Your task to perform on an android device: Open calendar and show me the fourth week of next month Image 0: 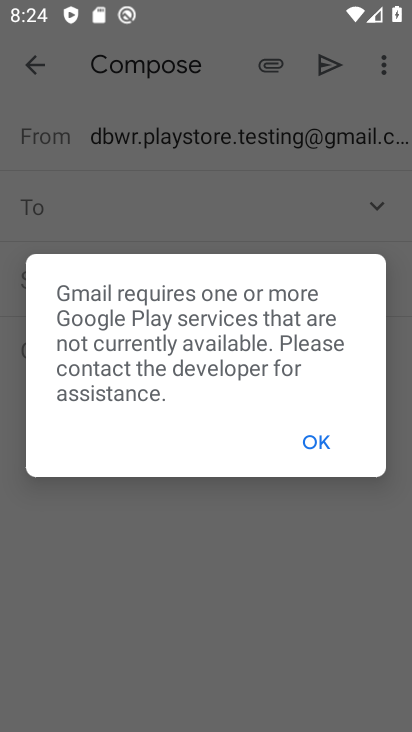
Step 0: click (316, 423)
Your task to perform on an android device: Open calendar and show me the fourth week of next month Image 1: 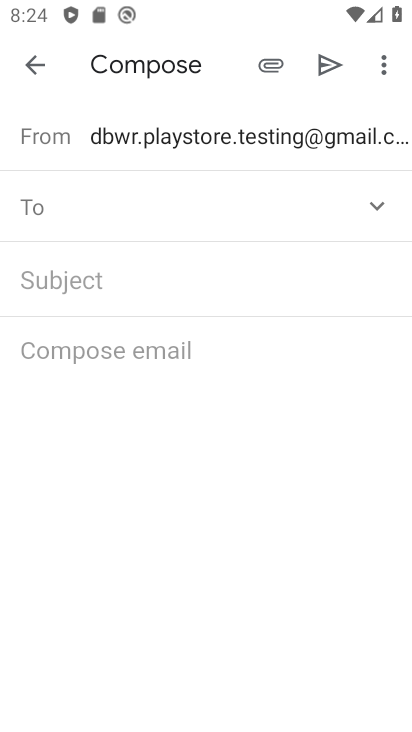
Step 1: click (35, 63)
Your task to perform on an android device: Open calendar and show me the fourth week of next month Image 2: 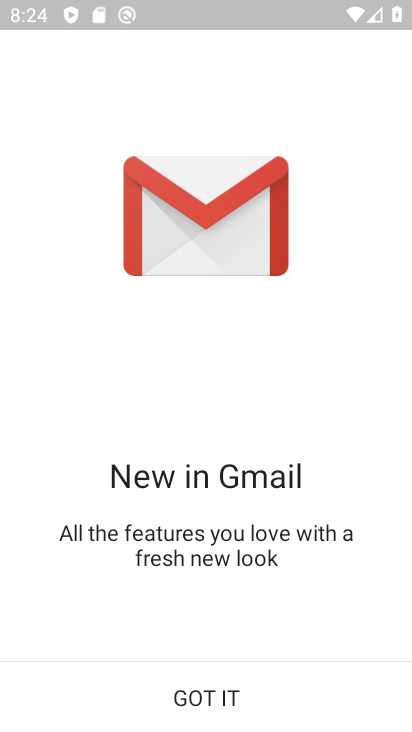
Step 2: click (239, 678)
Your task to perform on an android device: Open calendar and show me the fourth week of next month Image 3: 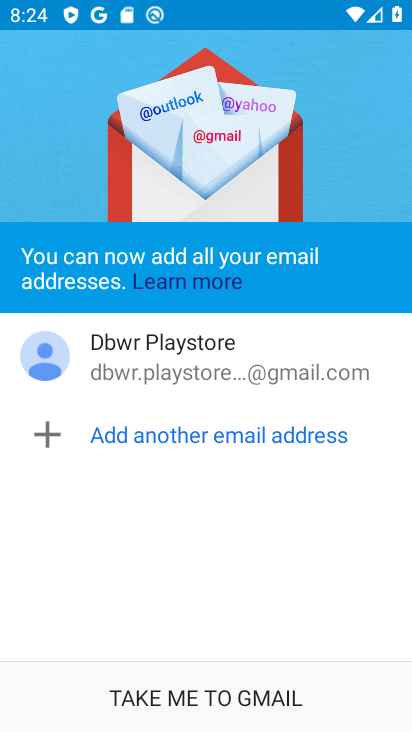
Step 3: press home button
Your task to perform on an android device: Open calendar and show me the fourth week of next month Image 4: 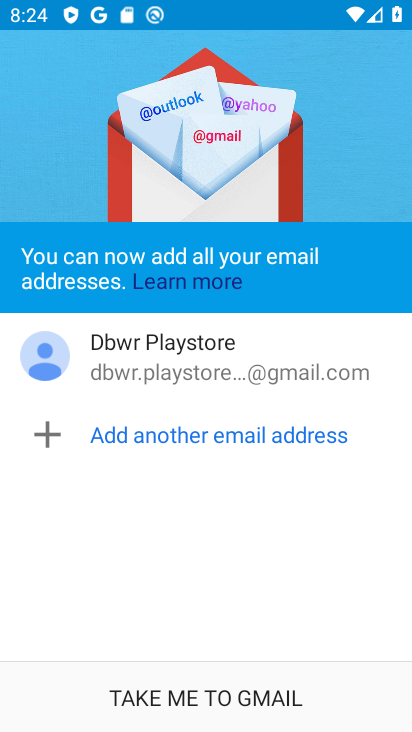
Step 4: press home button
Your task to perform on an android device: Open calendar and show me the fourth week of next month Image 5: 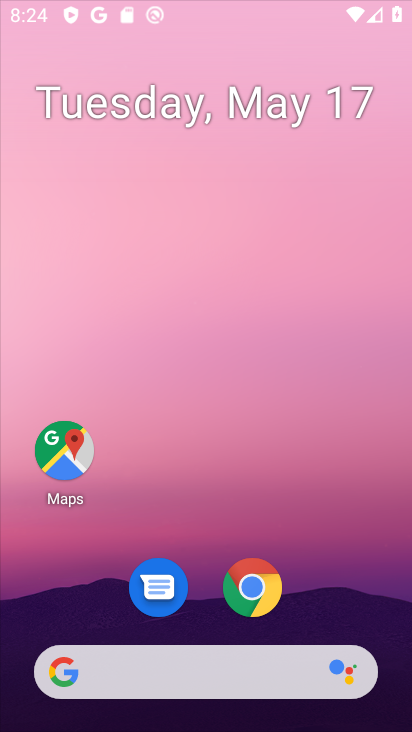
Step 5: press home button
Your task to perform on an android device: Open calendar and show me the fourth week of next month Image 6: 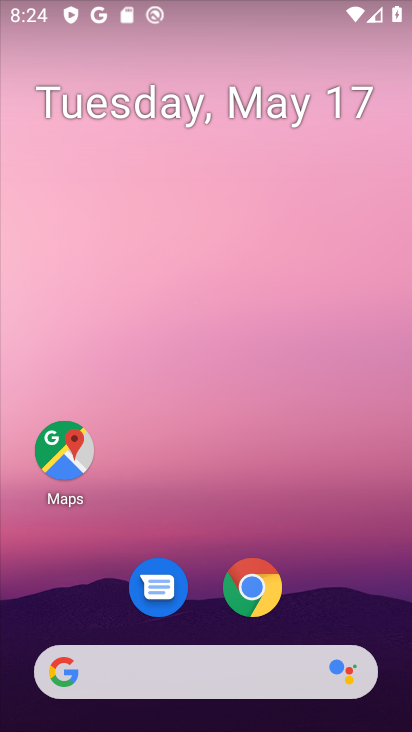
Step 6: drag from (274, 577) to (147, 198)
Your task to perform on an android device: Open calendar and show me the fourth week of next month Image 7: 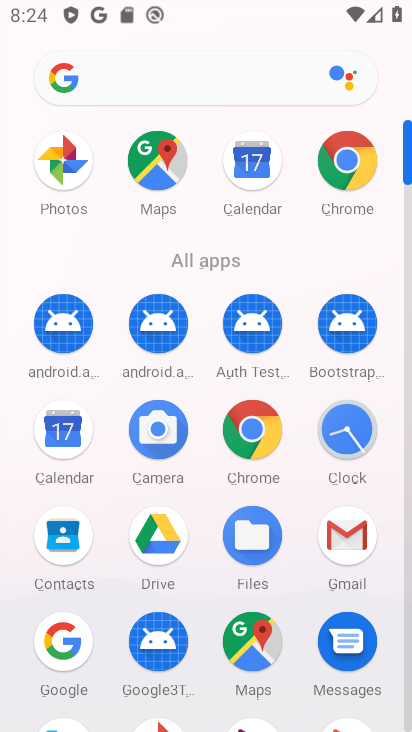
Step 7: click (54, 438)
Your task to perform on an android device: Open calendar and show me the fourth week of next month Image 8: 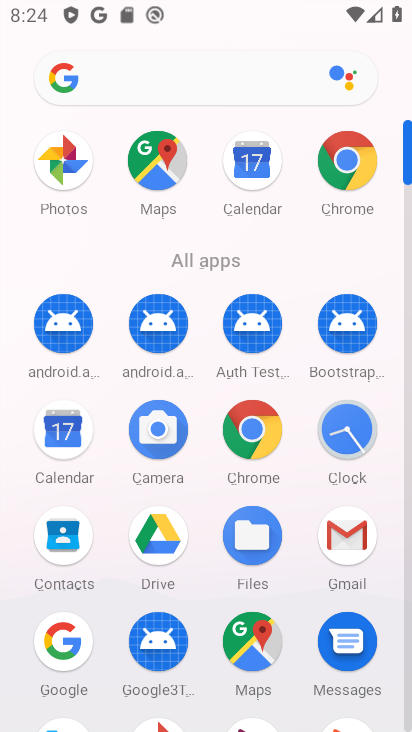
Step 8: click (66, 432)
Your task to perform on an android device: Open calendar and show me the fourth week of next month Image 9: 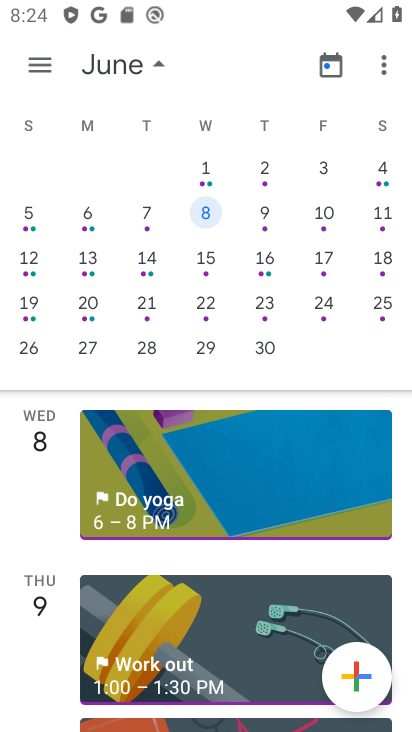
Step 9: click (198, 303)
Your task to perform on an android device: Open calendar and show me the fourth week of next month Image 10: 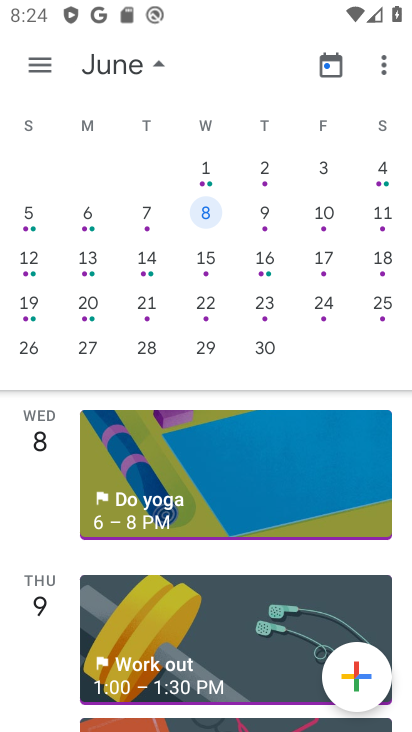
Step 10: click (198, 302)
Your task to perform on an android device: Open calendar and show me the fourth week of next month Image 11: 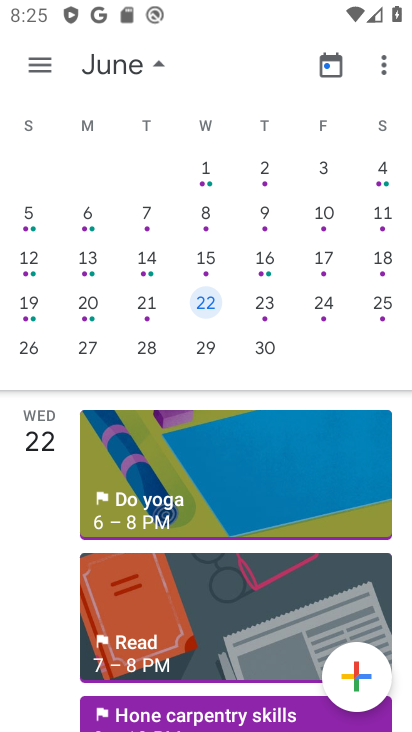
Step 11: task complete